Your task to perform on an android device: change your default location settings in chrome Image 0: 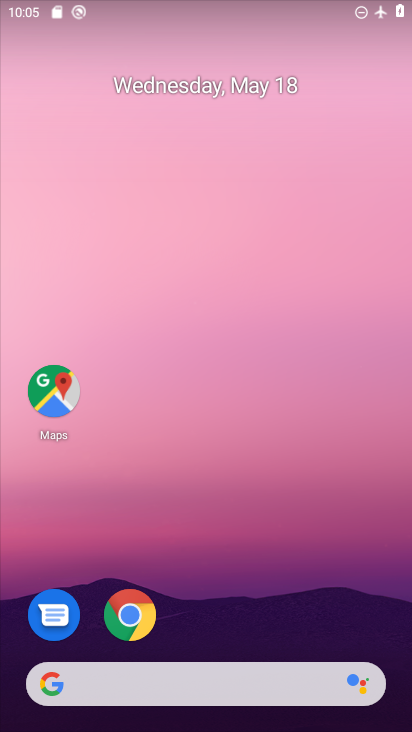
Step 0: drag from (228, 580) to (227, 120)
Your task to perform on an android device: change your default location settings in chrome Image 1: 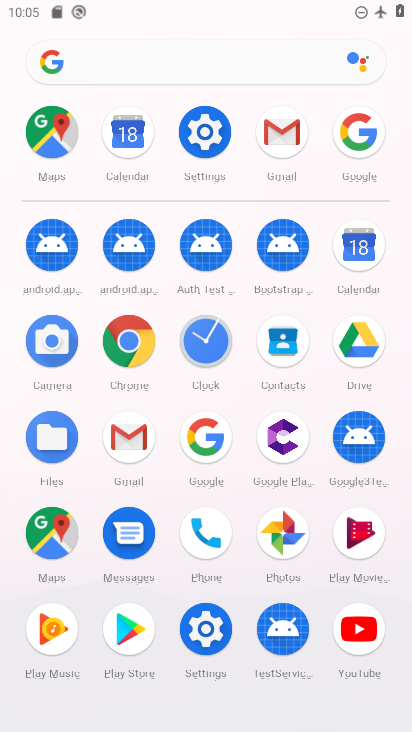
Step 1: click (130, 342)
Your task to perform on an android device: change your default location settings in chrome Image 2: 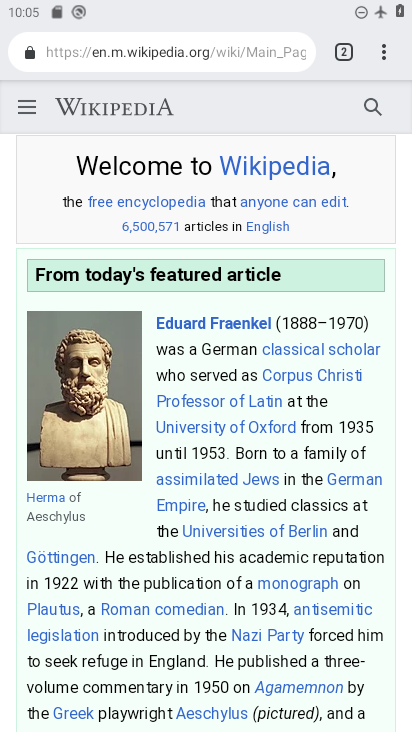
Step 2: click (376, 51)
Your task to perform on an android device: change your default location settings in chrome Image 3: 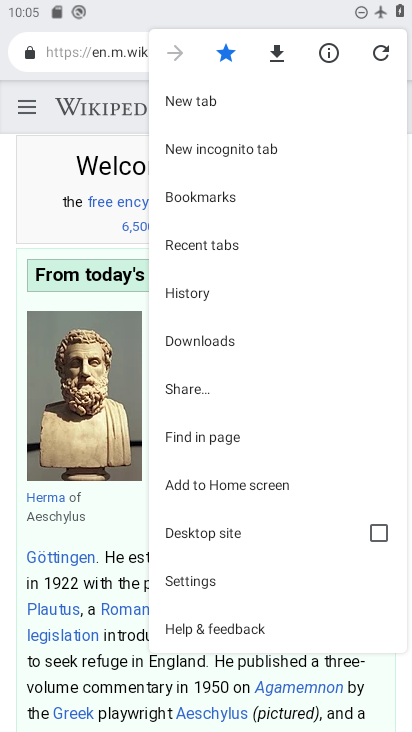
Step 3: click (231, 577)
Your task to perform on an android device: change your default location settings in chrome Image 4: 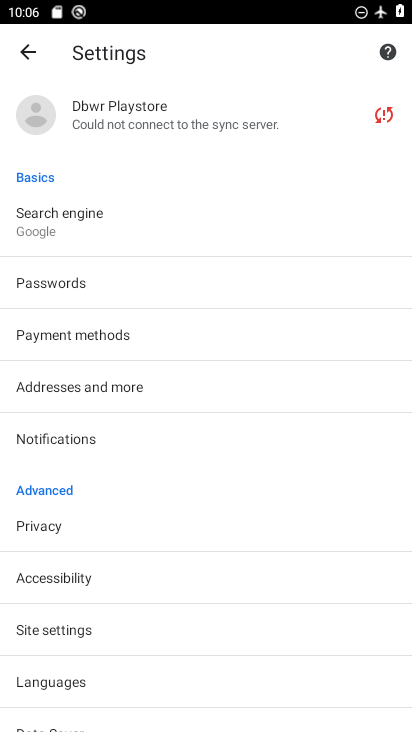
Step 4: click (70, 630)
Your task to perform on an android device: change your default location settings in chrome Image 5: 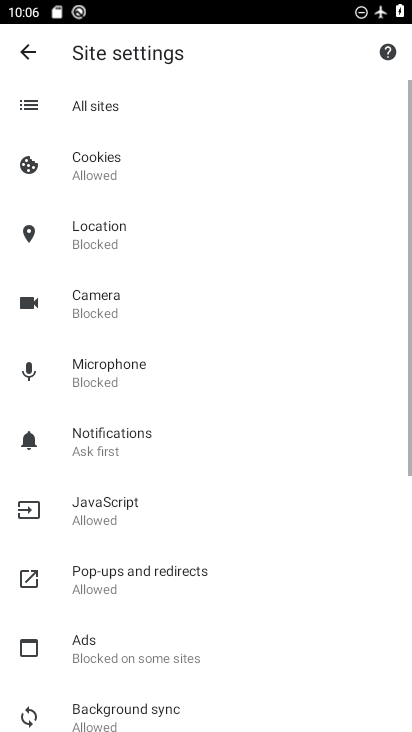
Step 5: click (127, 227)
Your task to perform on an android device: change your default location settings in chrome Image 6: 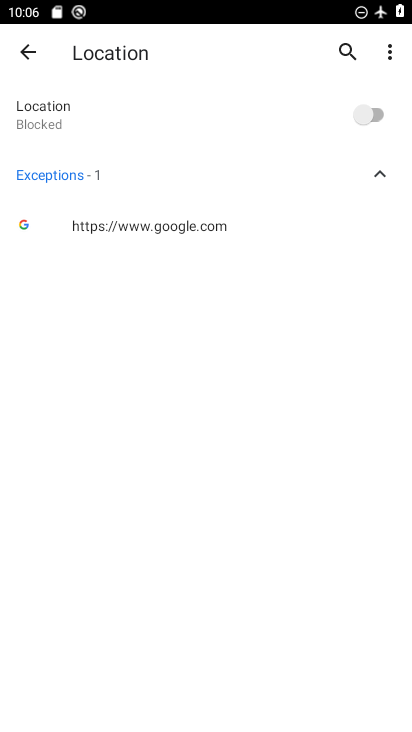
Step 6: click (360, 117)
Your task to perform on an android device: change your default location settings in chrome Image 7: 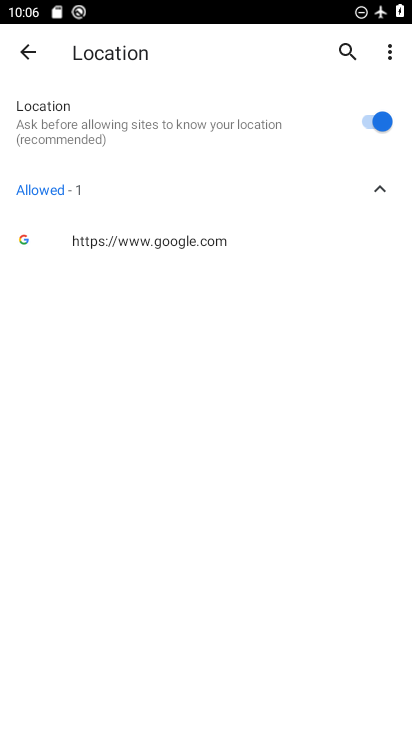
Step 7: task complete